Your task to perform on an android device: turn off data saver in the chrome app Image 0: 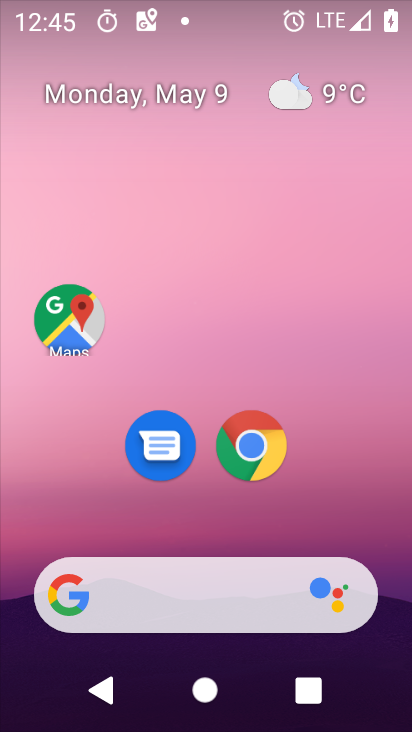
Step 0: click (258, 453)
Your task to perform on an android device: turn off data saver in the chrome app Image 1: 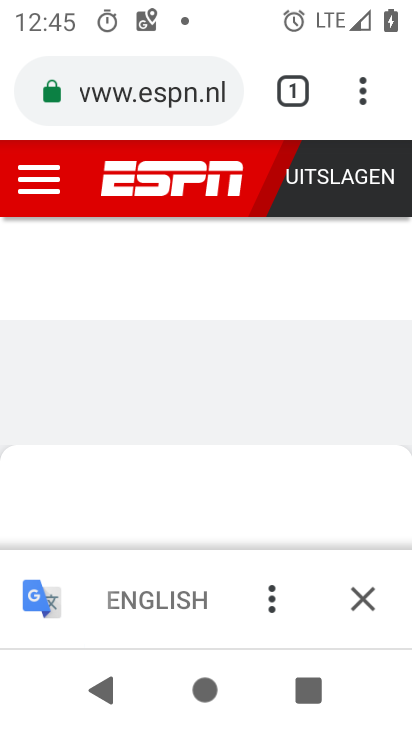
Step 1: drag from (367, 95) to (113, 484)
Your task to perform on an android device: turn off data saver in the chrome app Image 2: 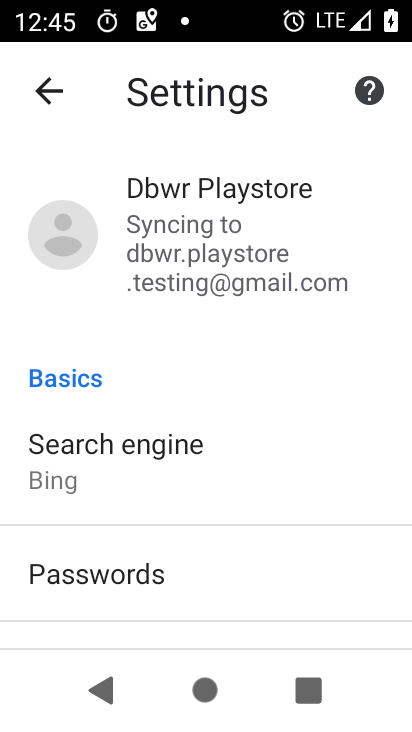
Step 2: drag from (142, 508) to (154, 218)
Your task to perform on an android device: turn off data saver in the chrome app Image 3: 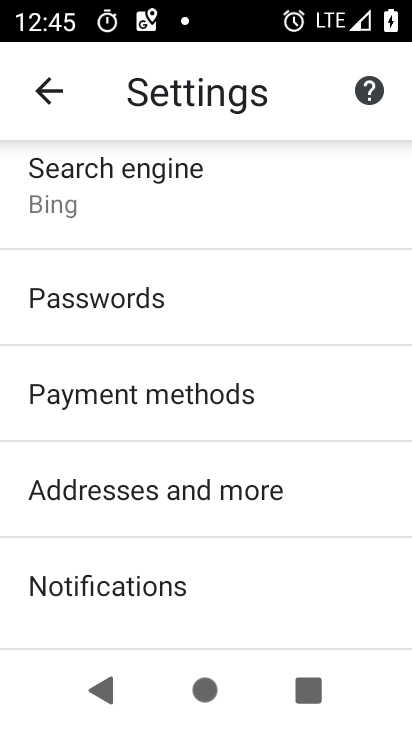
Step 3: drag from (191, 556) to (182, 161)
Your task to perform on an android device: turn off data saver in the chrome app Image 4: 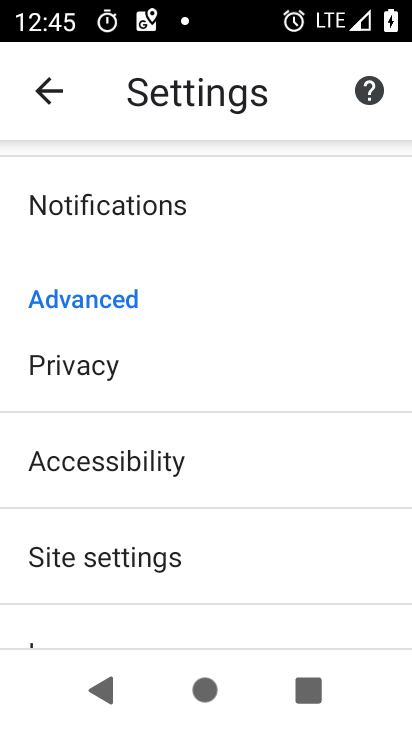
Step 4: drag from (200, 527) to (204, 208)
Your task to perform on an android device: turn off data saver in the chrome app Image 5: 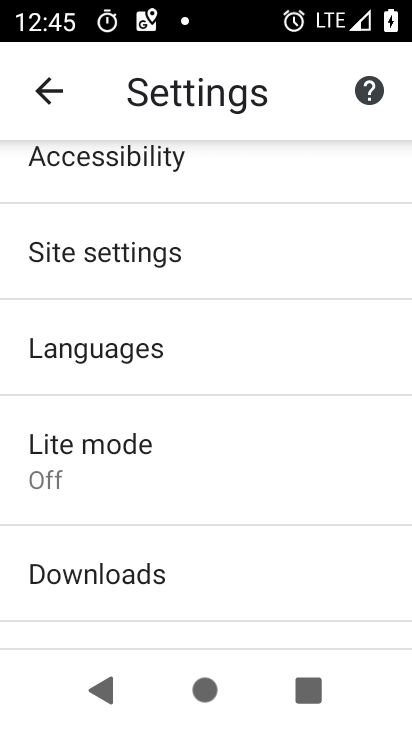
Step 5: click (113, 462)
Your task to perform on an android device: turn off data saver in the chrome app Image 6: 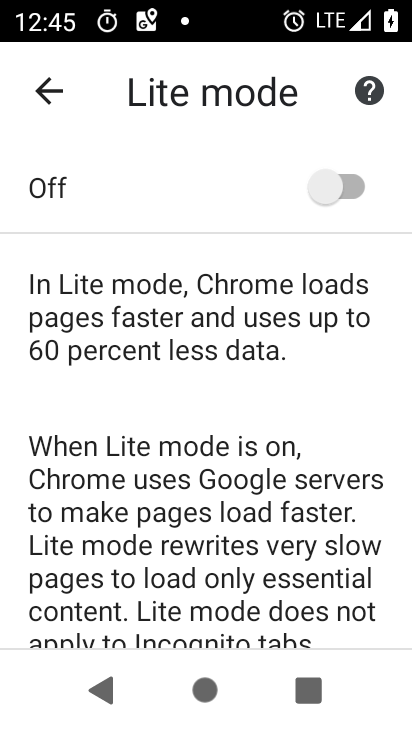
Step 6: task complete